Your task to perform on an android device: Go to Google Image 0: 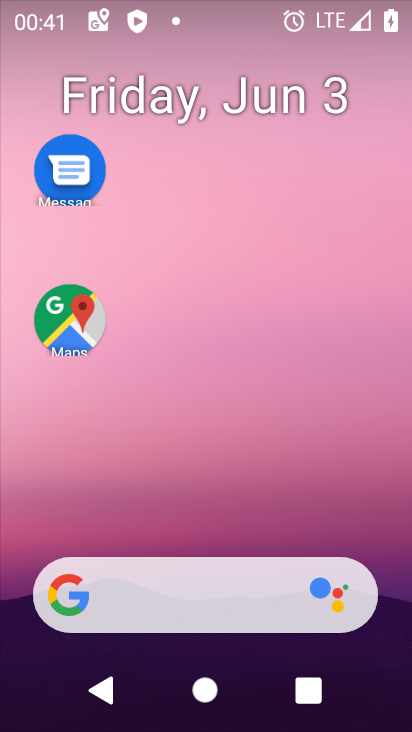
Step 0: drag from (393, 564) to (361, 465)
Your task to perform on an android device: Go to Google Image 1: 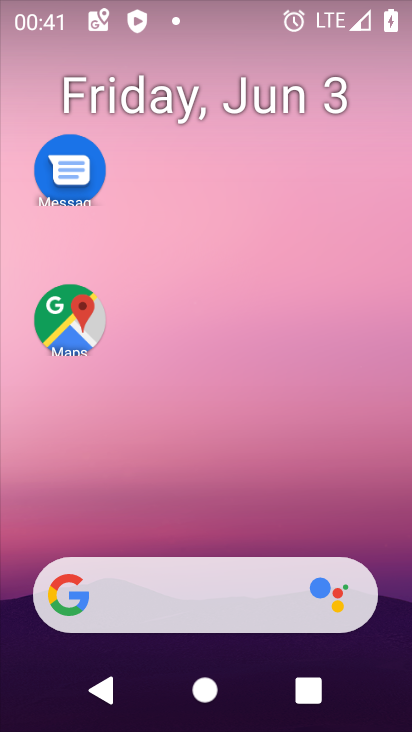
Step 1: drag from (386, 683) to (231, 1)
Your task to perform on an android device: Go to Google Image 2: 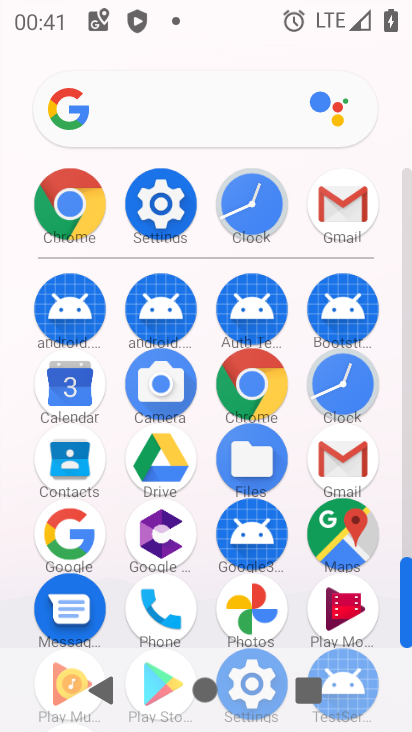
Step 2: click (78, 532)
Your task to perform on an android device: Go to Google Image 3: 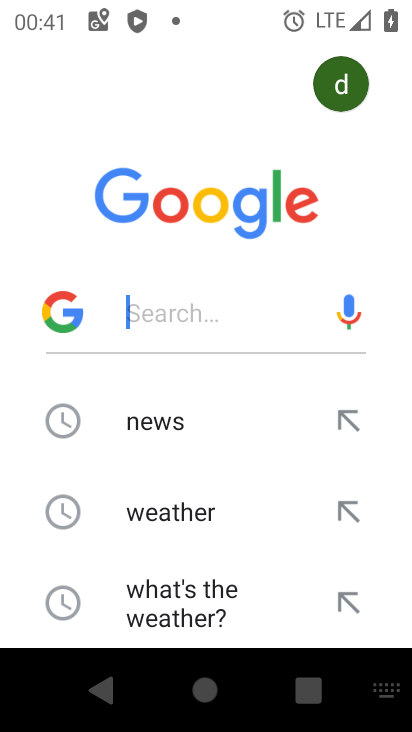
Step 3: task complete